Your task to perform on an android device: turn on javascript in the chrome app Image 0: 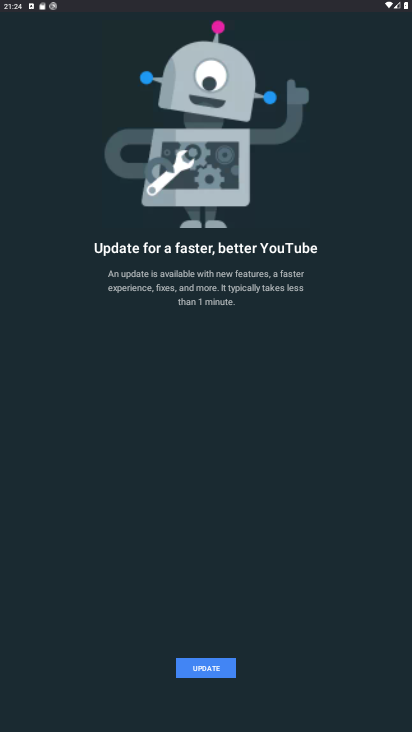
Step 0: press home button
Your task to perform on an android device: turn on javascript in the chrome app Image 1: 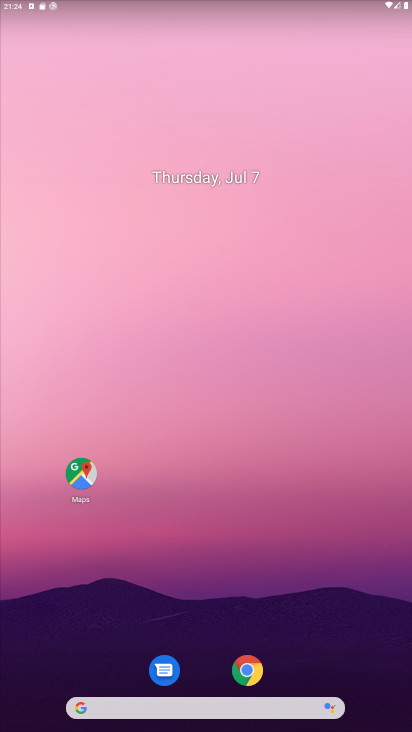
Step 1: click (235, 670)
Your task to perform on an android device: turn on javascript in the chrome app Image 2: 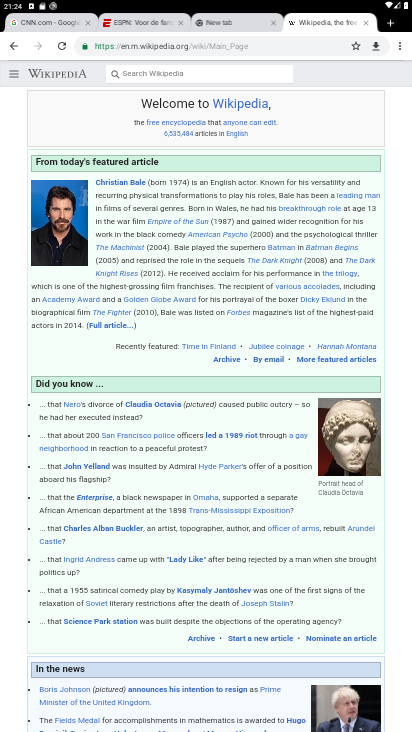
Step 2: click (403, 50)
Your task to perform on an android device: turn on javascript in the chrome app Image 3: 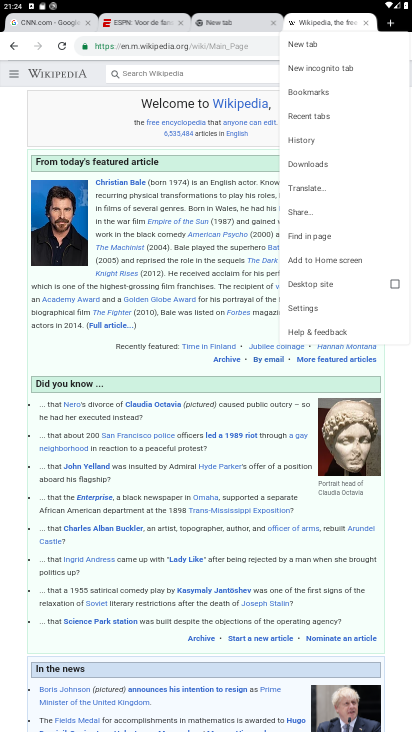
Step 3: click (316, 303)
Your task to perform on an android device: turn on javascript in the chrome app Image 4: 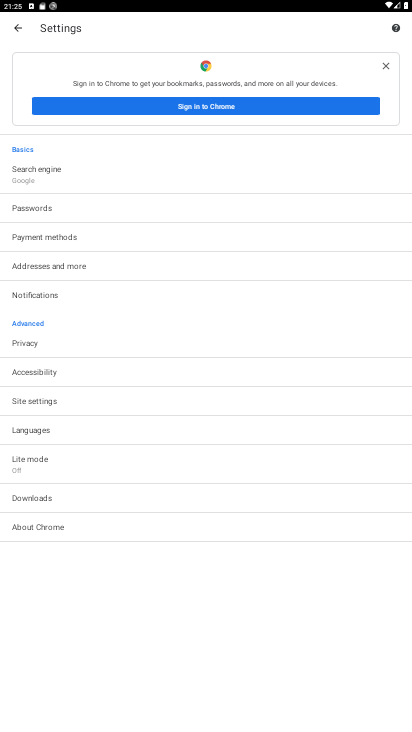
Step 4: press back button
Your task to perform on an android device: turn on javascript in the chrome app Image 5: 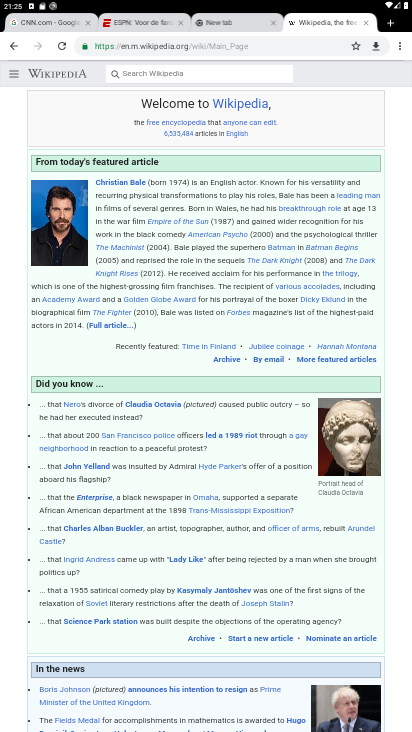
Step 5: click (397, 46)
Your task to perform on an android device: turn on javascript in the chrome app Image 6: 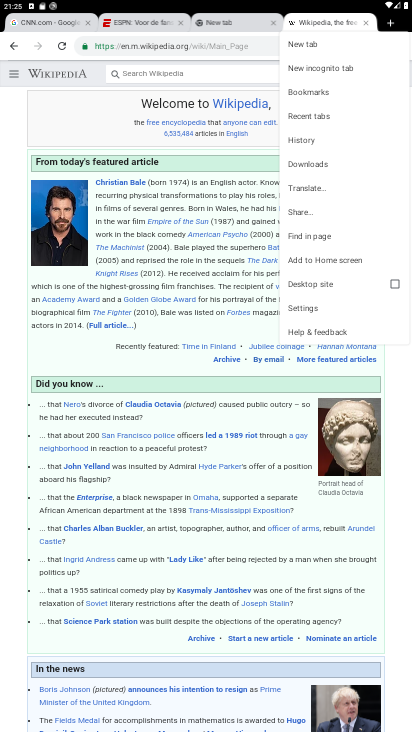
Step 6: click (308, 301)
Your task to perform on an android device: turn on javascript in the chrome app Image 7: 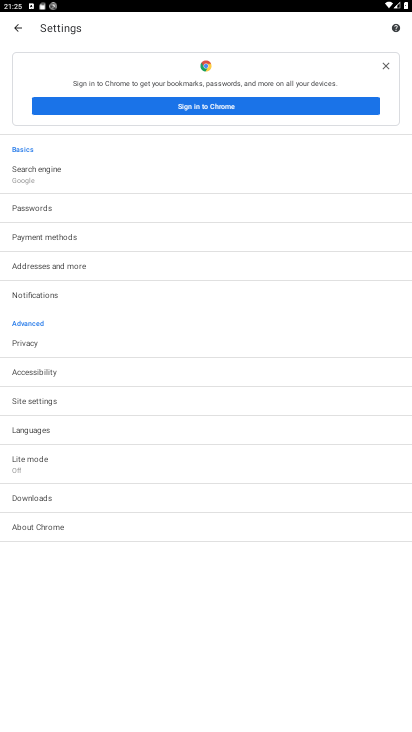
Step 7: click (46, 402)
Your task to perform on an android device: turn on javascript in the chrome app Image 8: 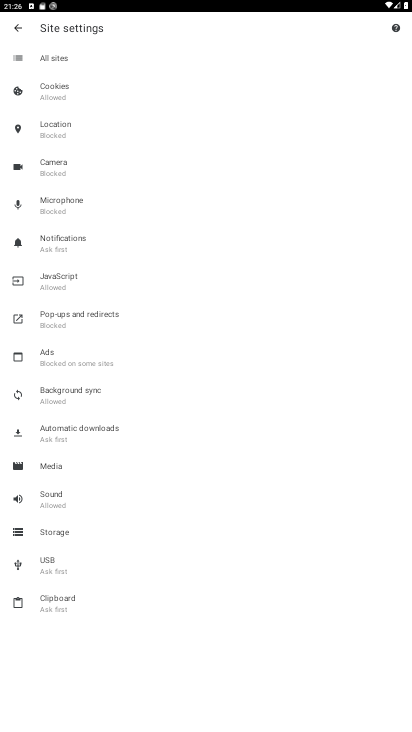
Step 8: click (82, 275)
Your task to perform on an android device: turn on javascript in the chrome app Image 9: 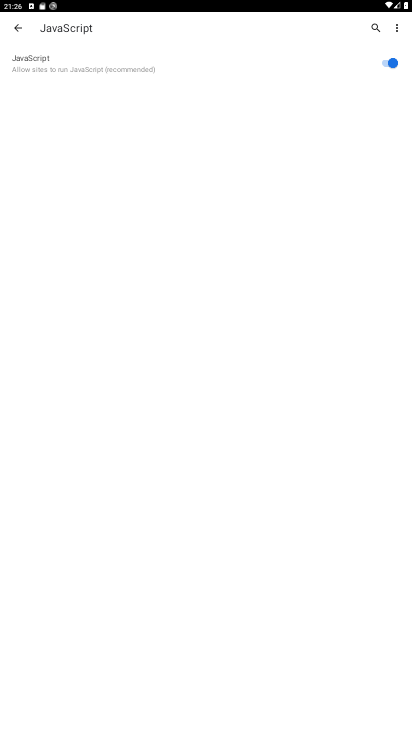
Step 9: task complete